Your task to perform on an android device: Do I have any events tomorrow? Image 0: 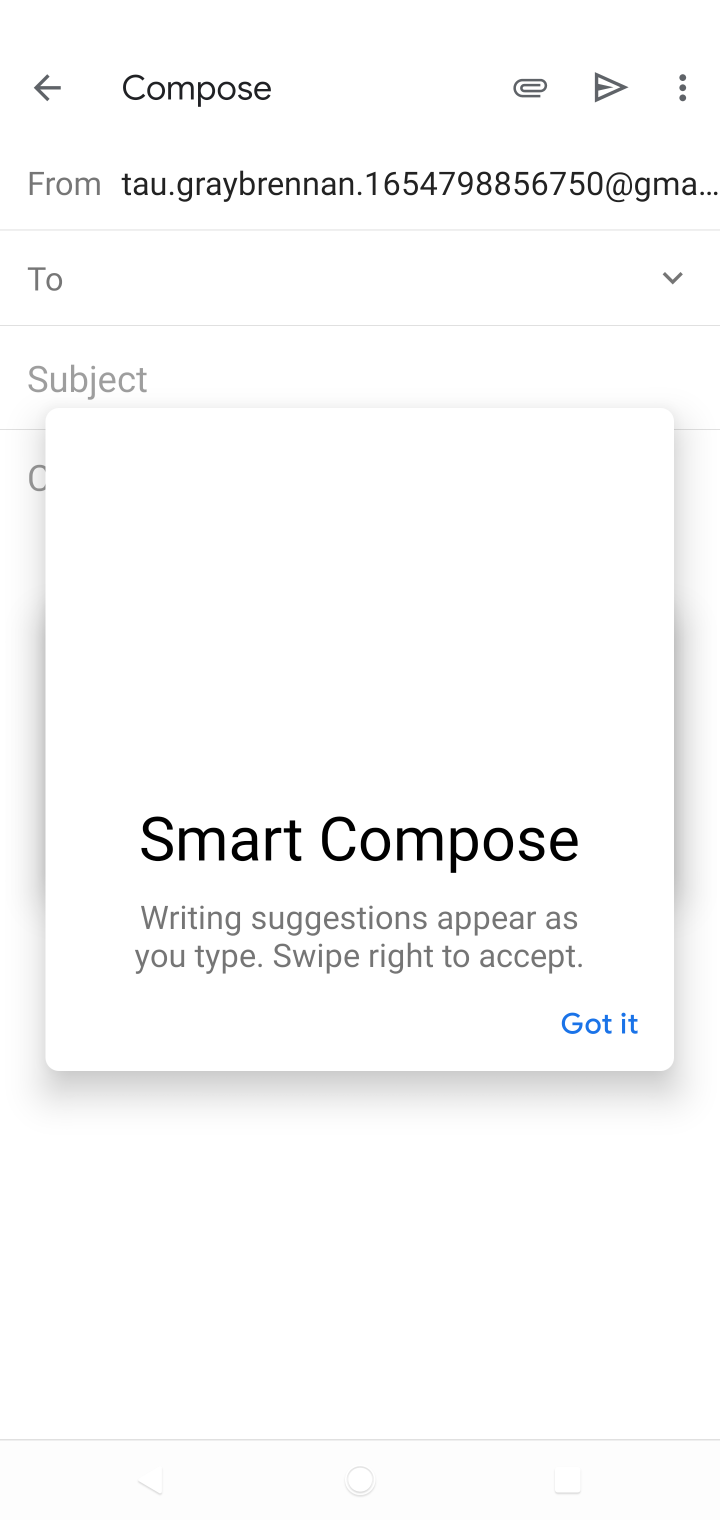
Step 0: press home button
Your task to perform on an android device: Do I have any events tomorrow? Image 1: 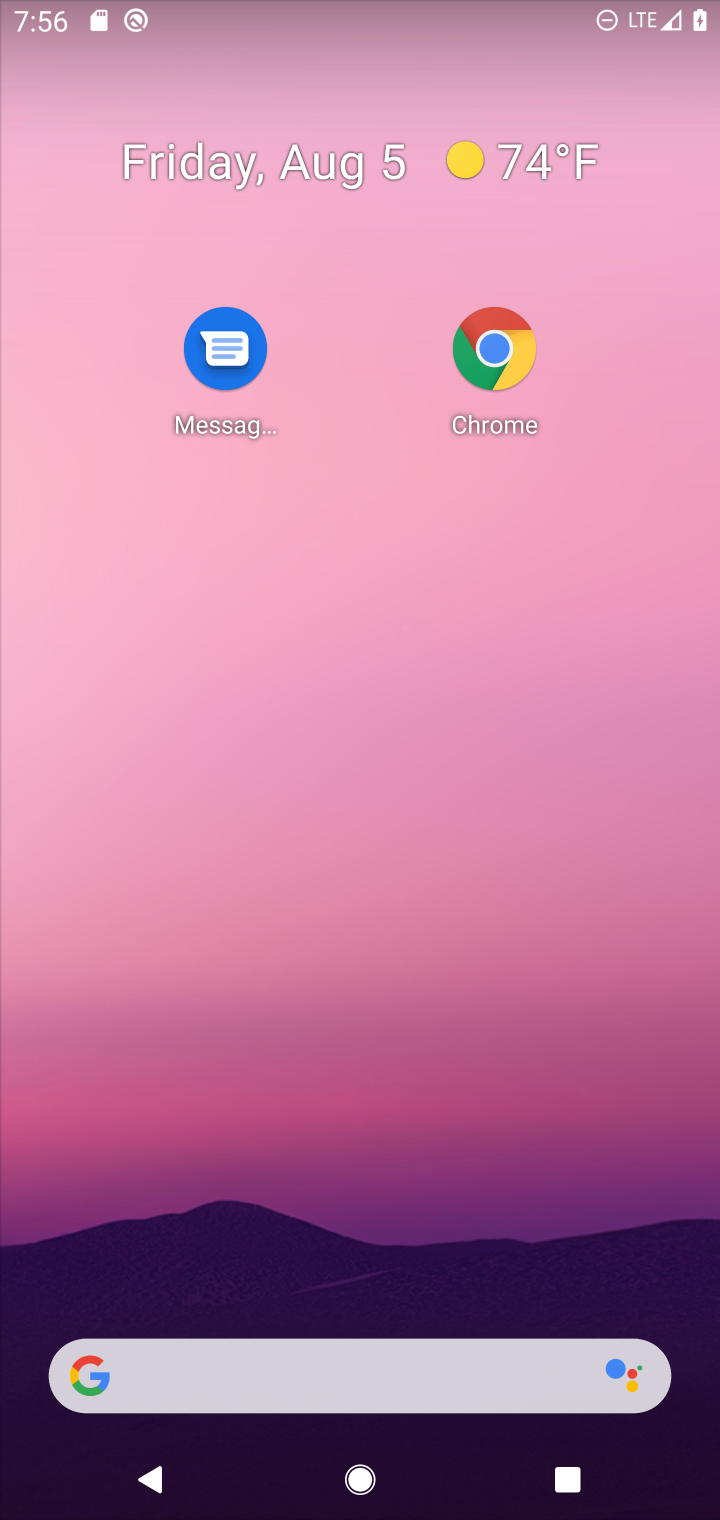
Step 1: drag from (408, 1438) to (229, 336)
Your task to perform on an android device: Do I have any events tomorrow? Image 2: 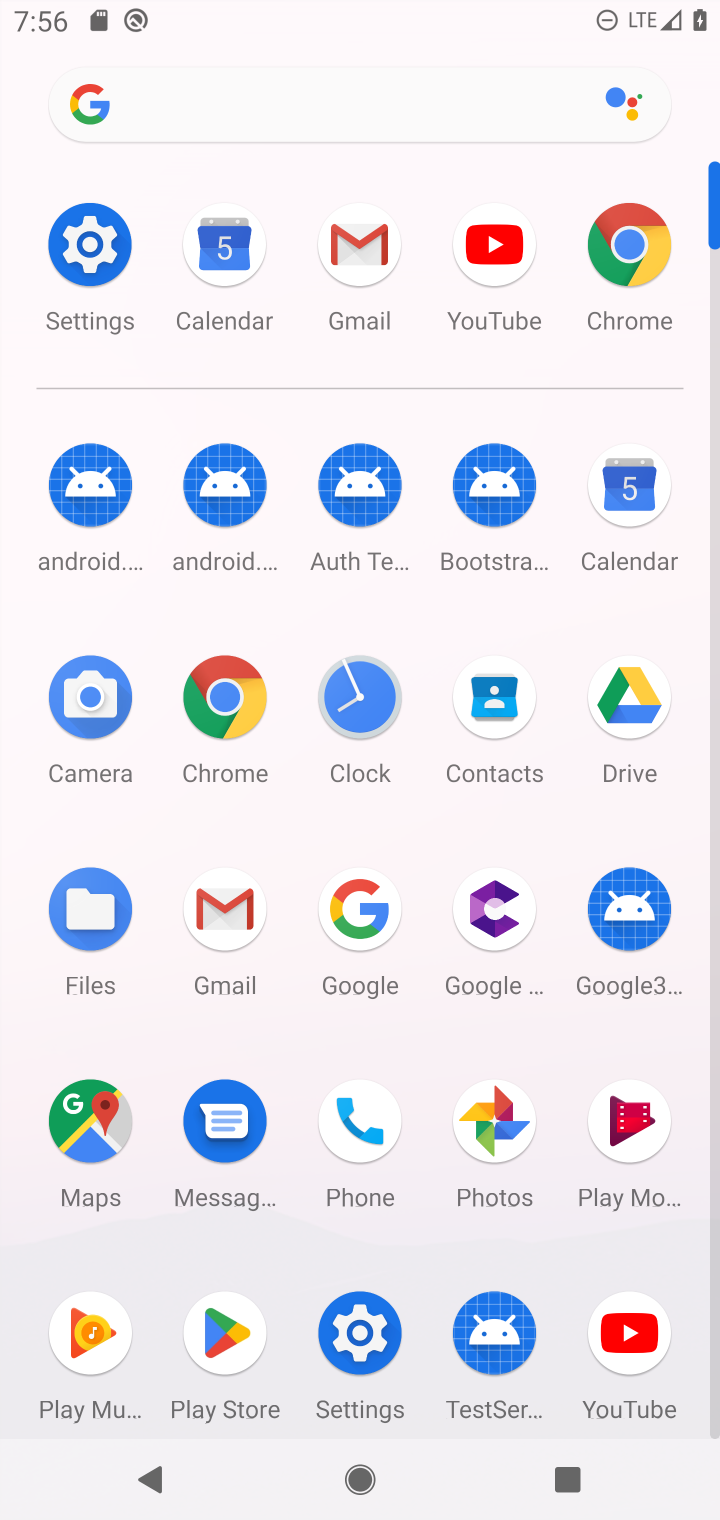
Step 2: click (614, 469)
Your task to perform on an android device: Do I have any events tomorrow? Image 3: 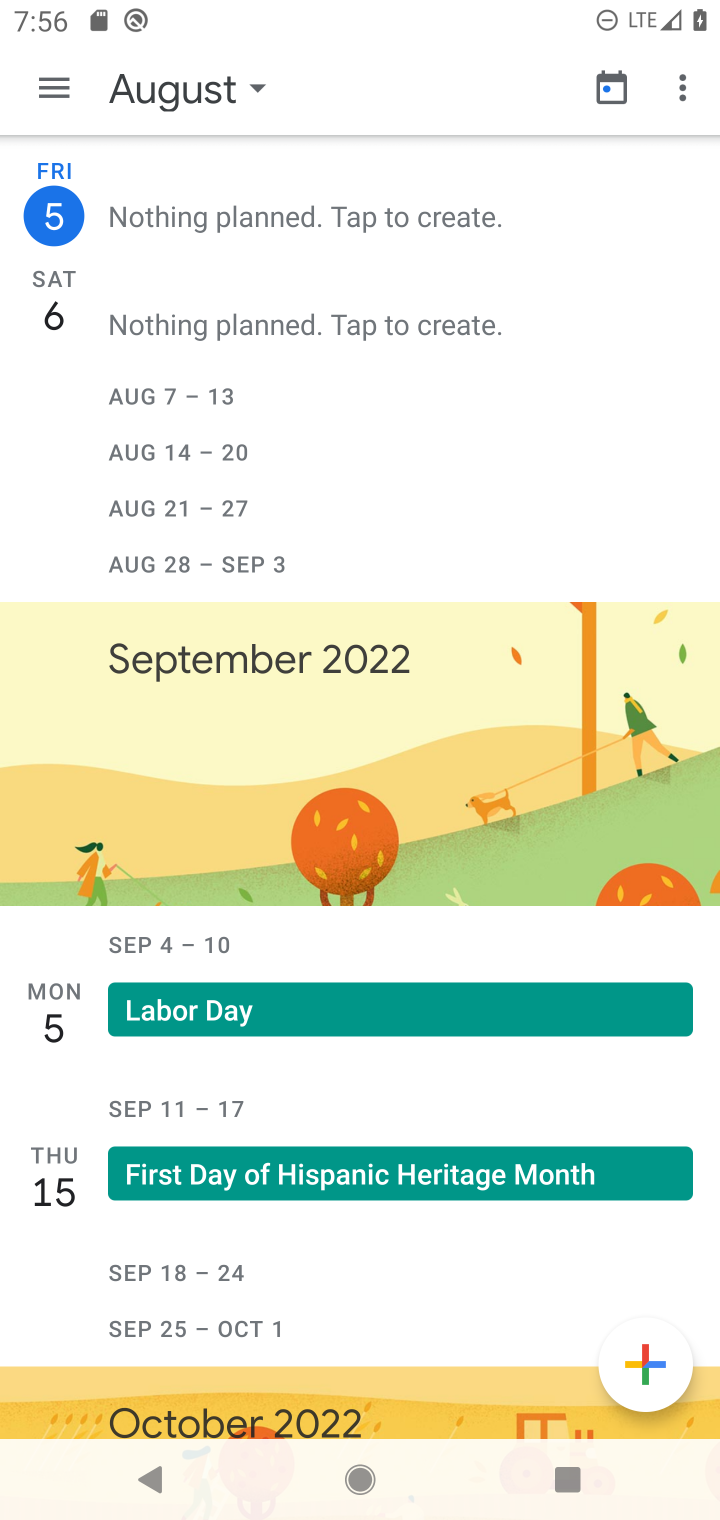
Step 3: click (54, 94)
Your task to perform on an android device: Do I have any events tomorrow? Image 4: 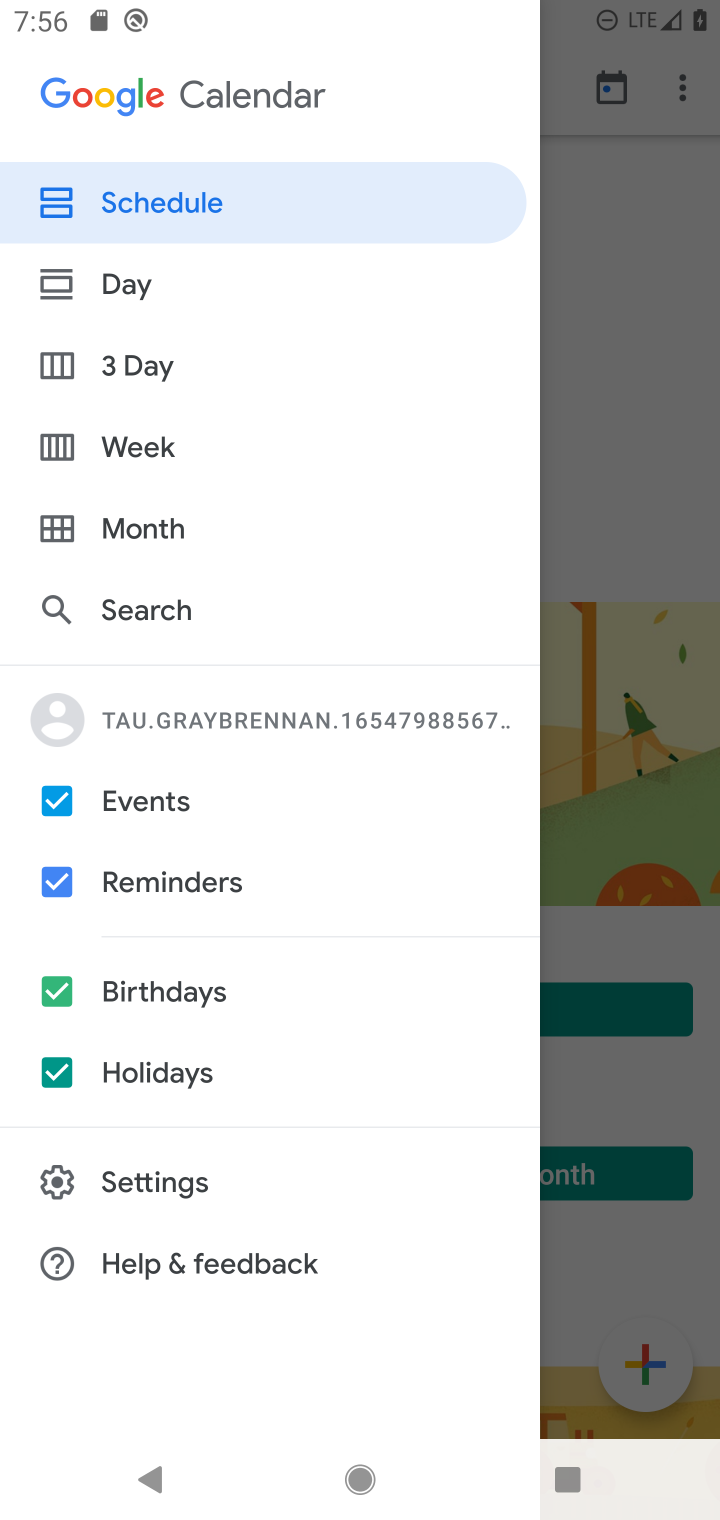
Step 4: click (220, 531)
Your task to perform on an android device: Do I have any events tomorrow? Image 5: 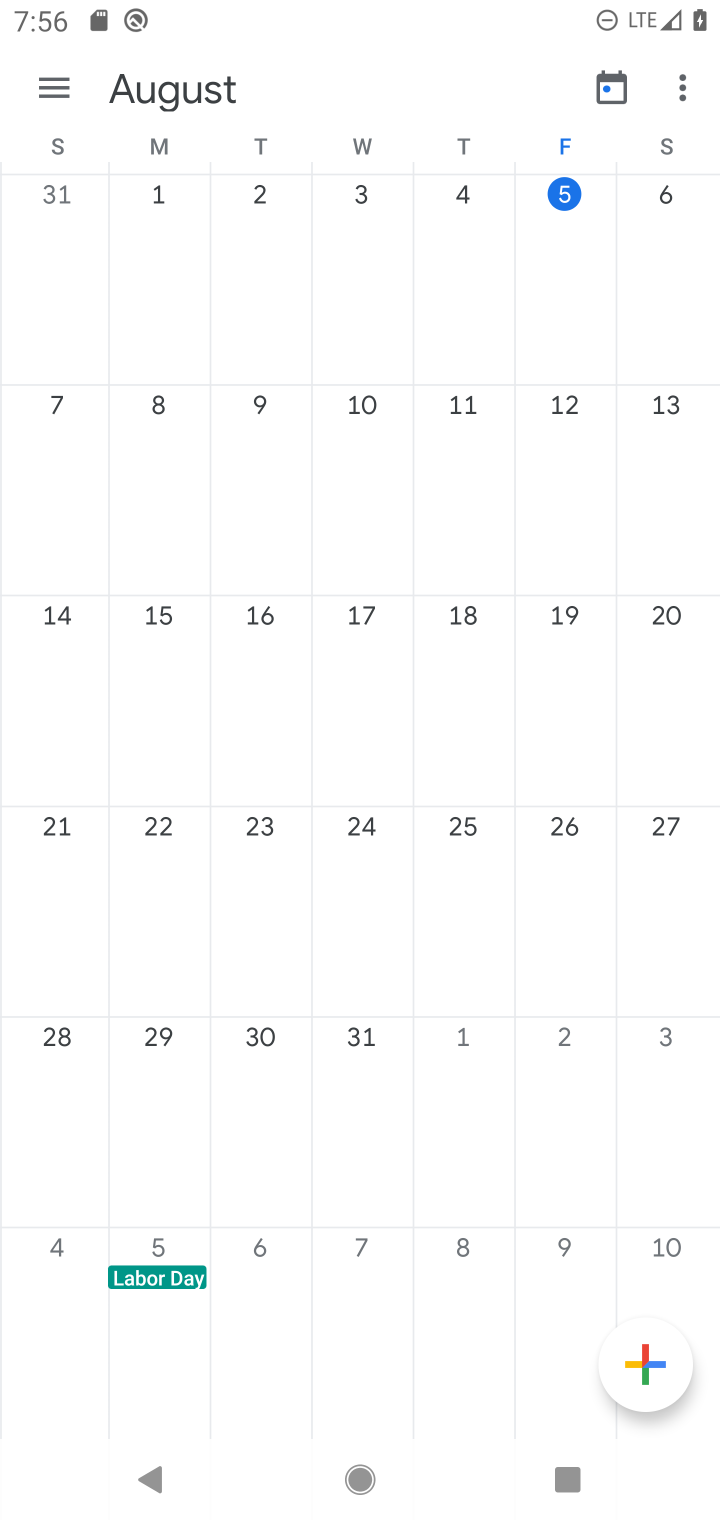
Step 5: click (645, 255)
Your task to perform on an android device: Do I have any events tomorrow? Image 6: 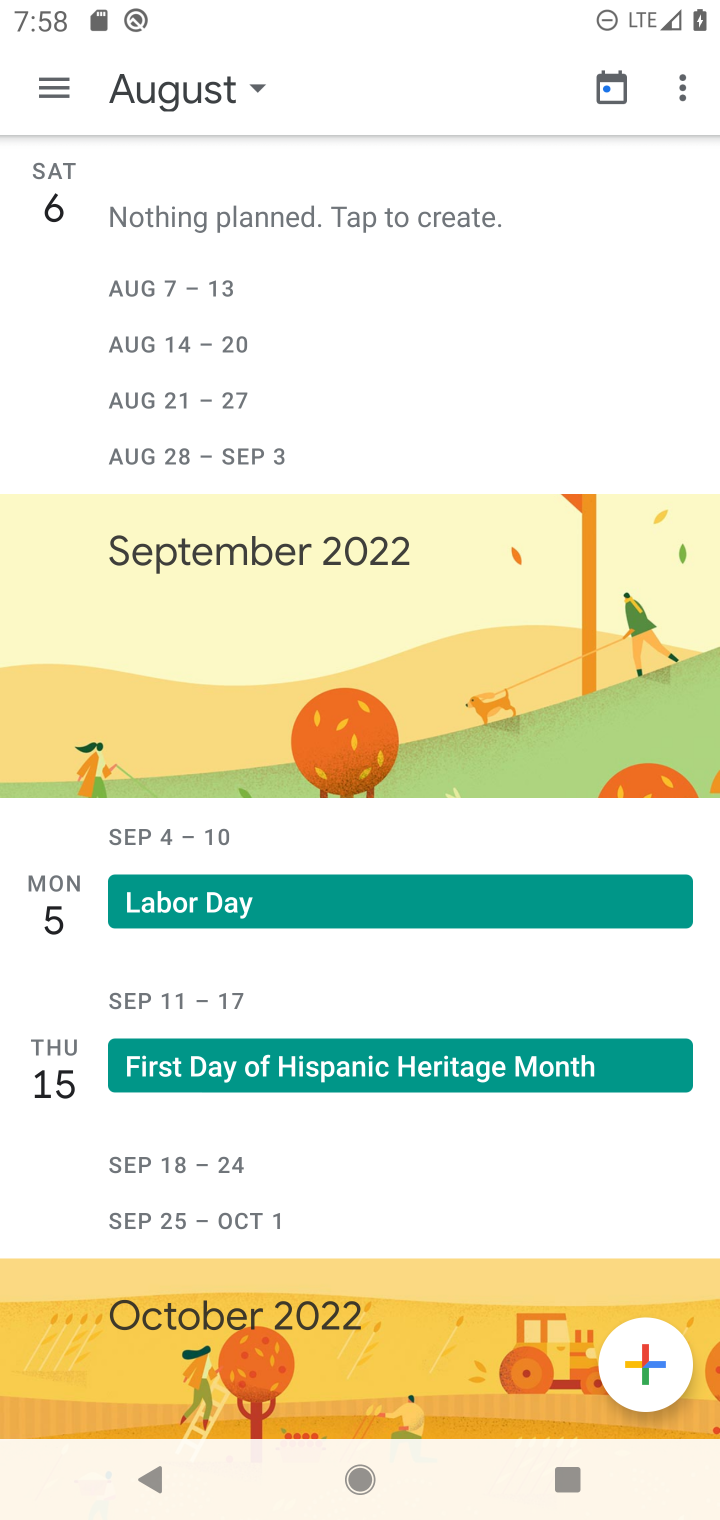
Step 6: task complete